Your task to perform on an android device: Search for hotels in Washington DC Image 0: 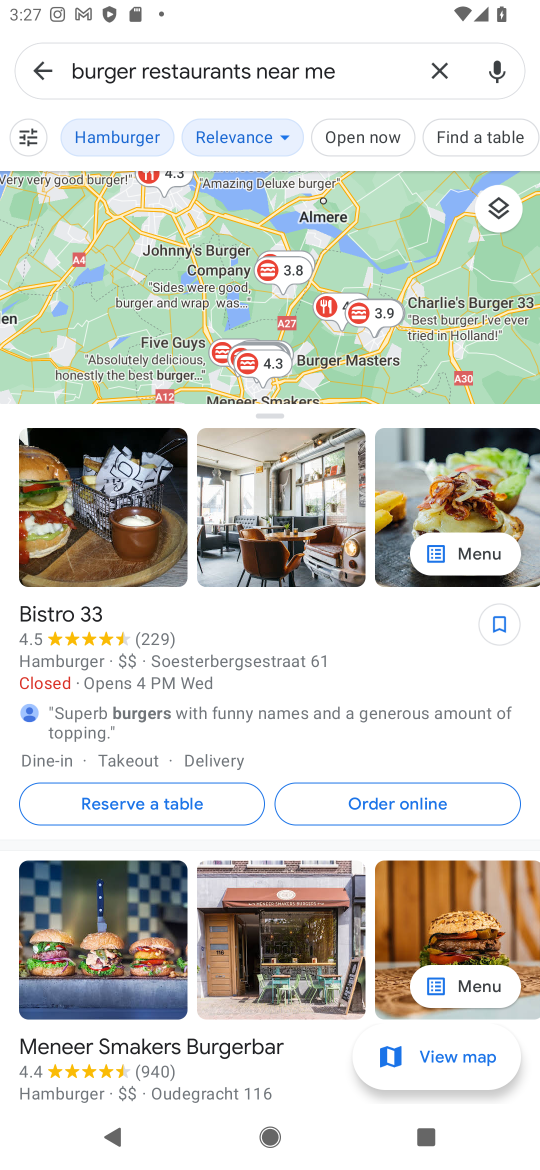
Step 0: press home button
Your task to perform on an android device: Search for hotels in Washington DC Image 1: 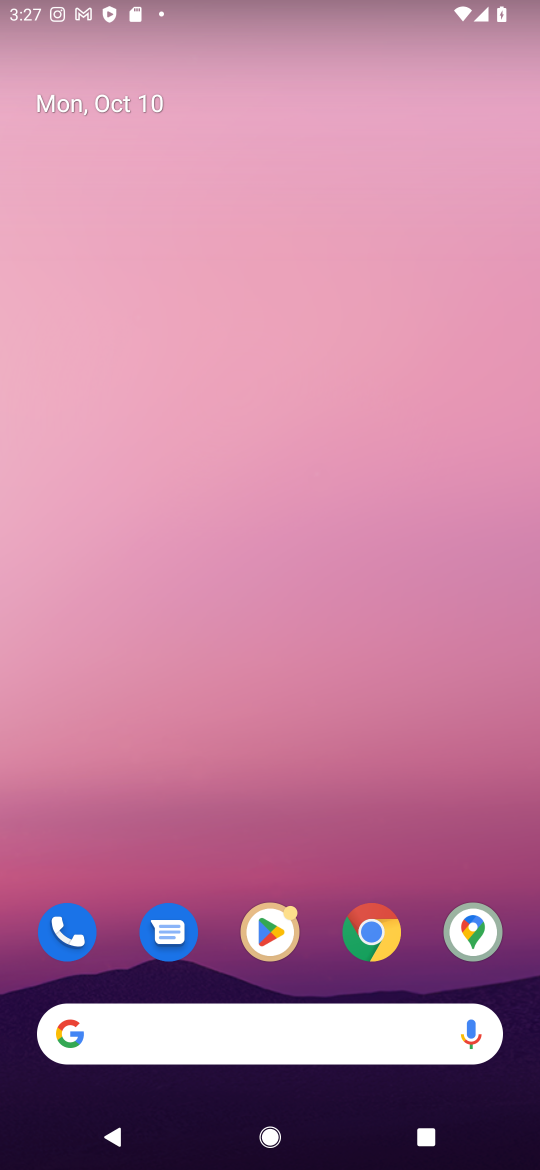
Step 1: click (302, 1030)
Your task to perform on an android device: Search for hotels in Washington DC Image 2: 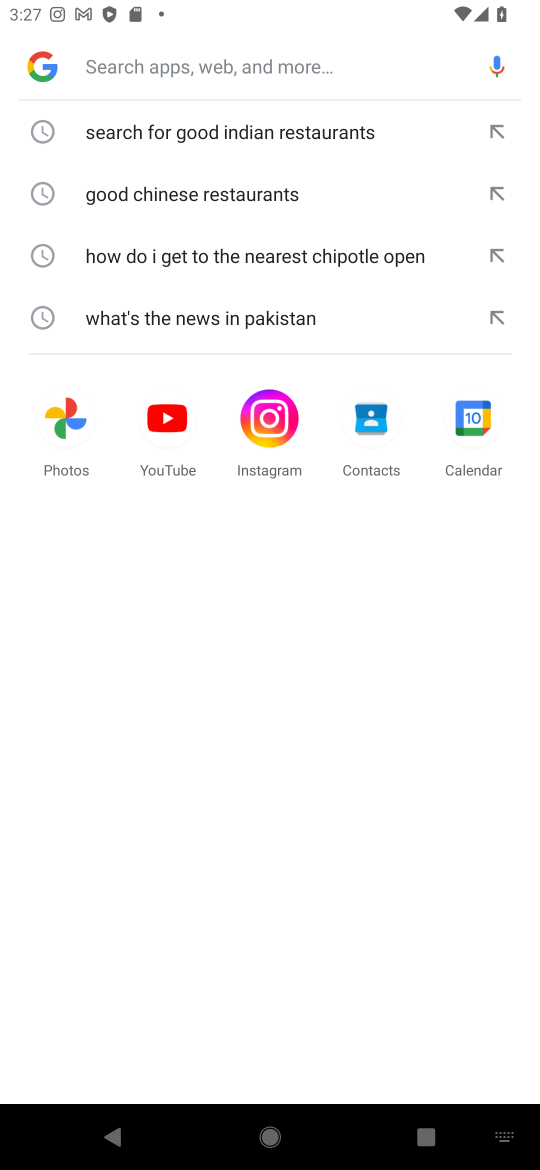
Step 2: type " hotels in Washington DC"
Your task to perform on an android device: Search for hotels in Washington DC Image 3: 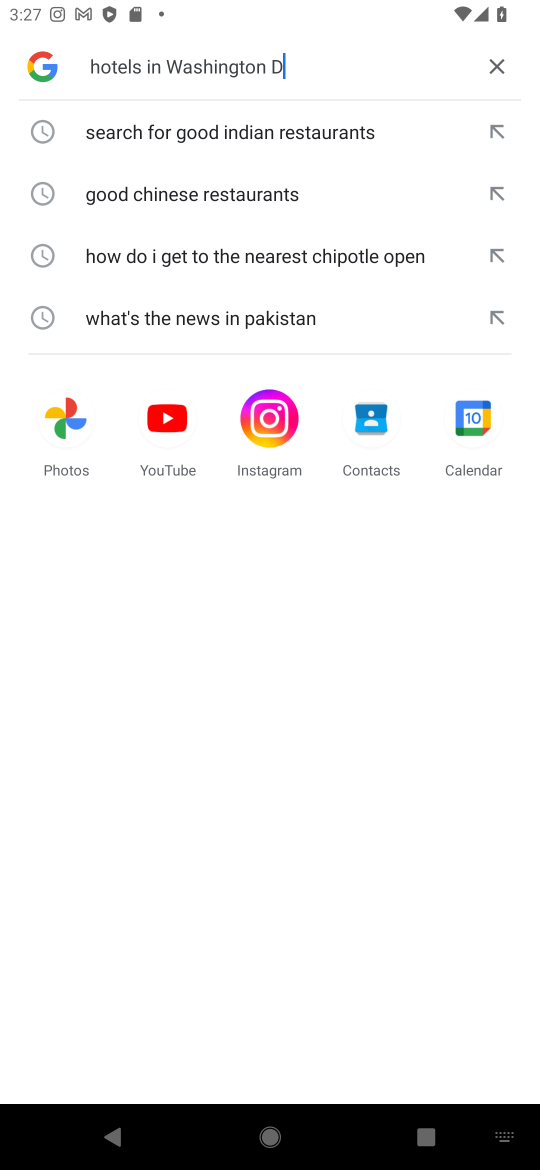
Step 3: press enter
Your task to perform on an android device: Search for hotels in Washington DC Image 4: 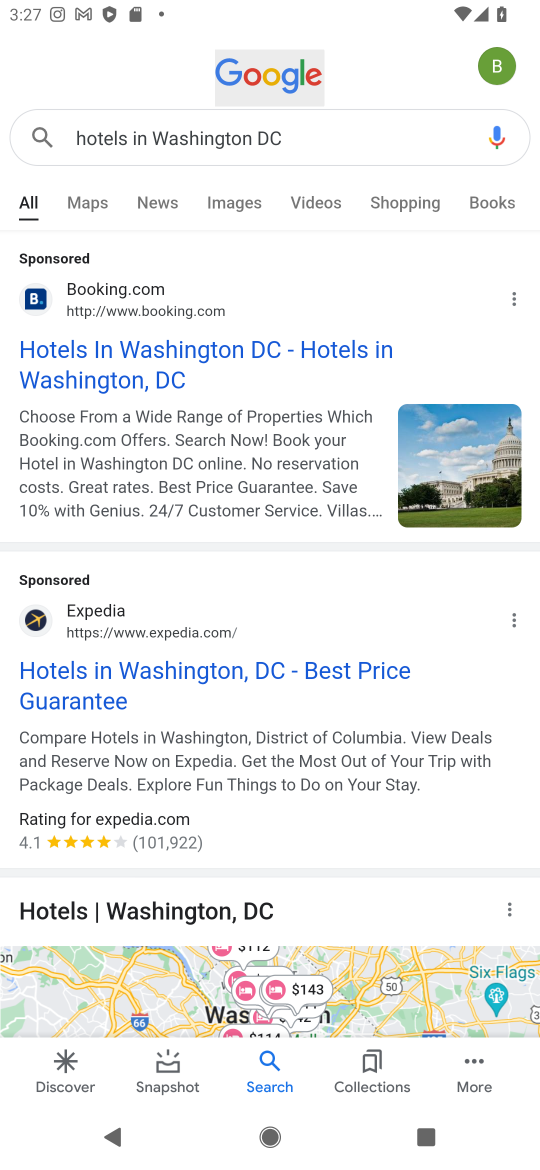
Step 4: task complete